Your task to perform on an android device: open app "WhatsApp Messenger" (install if not already installed) Image 0: 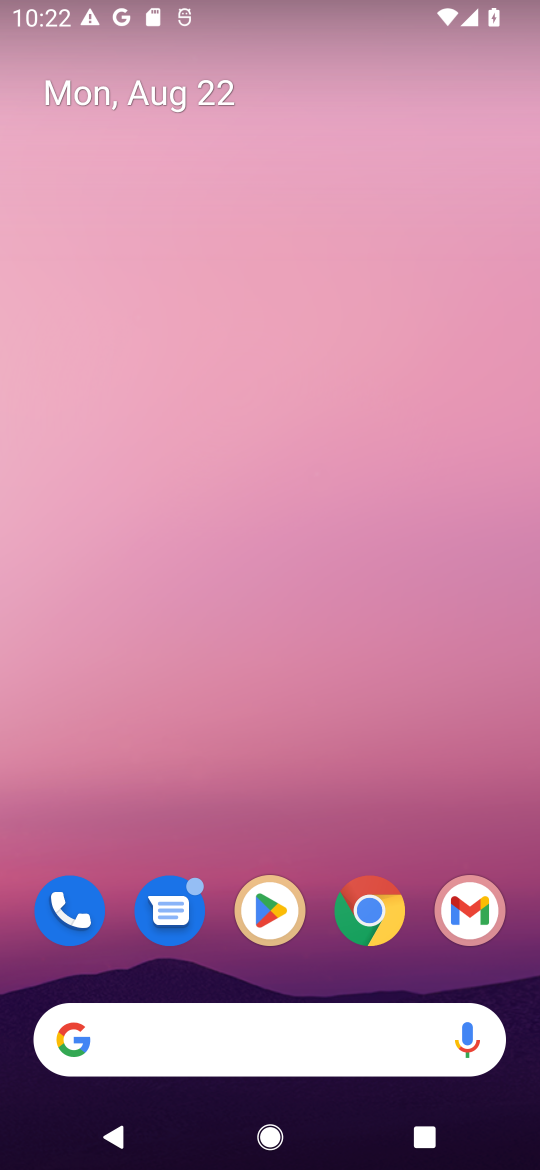
Step 0: click (271, 922)
Your task to perform on an android device: open app "WhatsApp Messenger" (install if not already installed) Image 1: 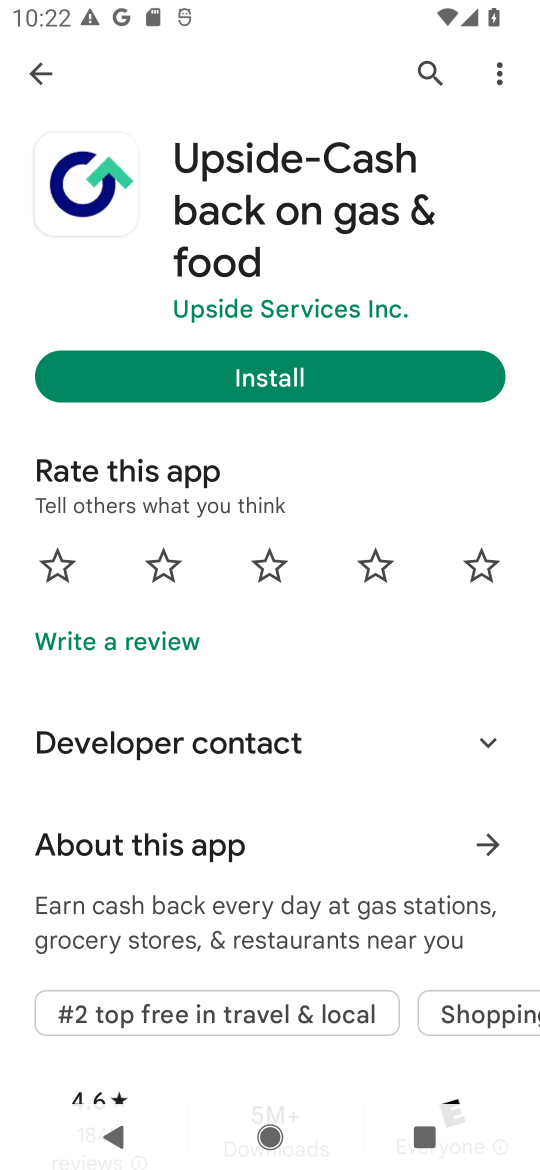
Step 1: click (440, 70)
Your task to perform on an android device: open app "WhatsApp Messenger" (install if not already installed) Image 2: 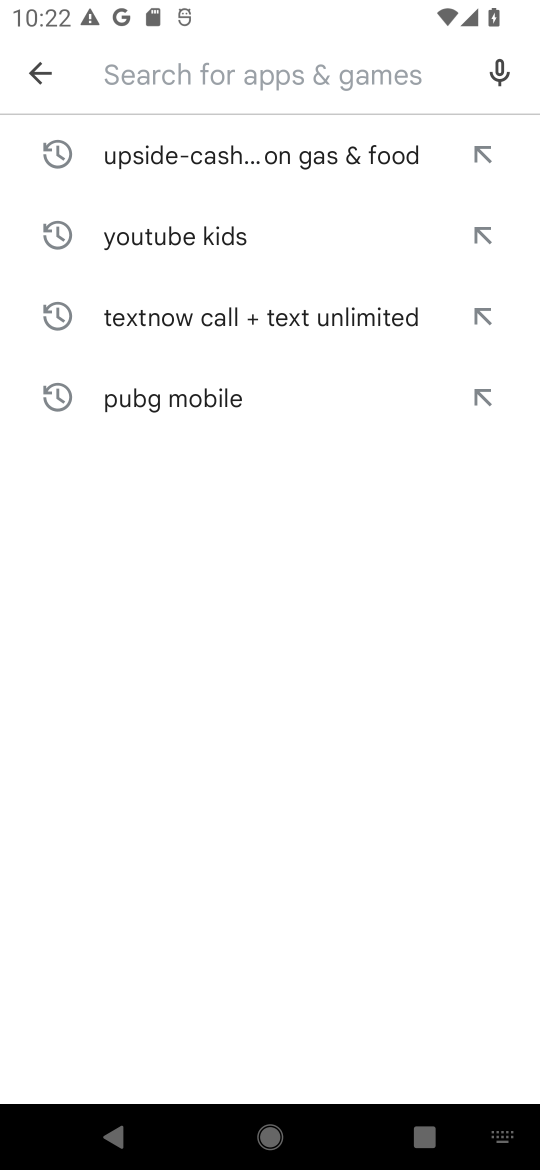
Step 2: type "WhatsApp Messenger"
Your task to perform on an android device: open app "WhatsApp Messenger" (install if not already installed) Image 3: 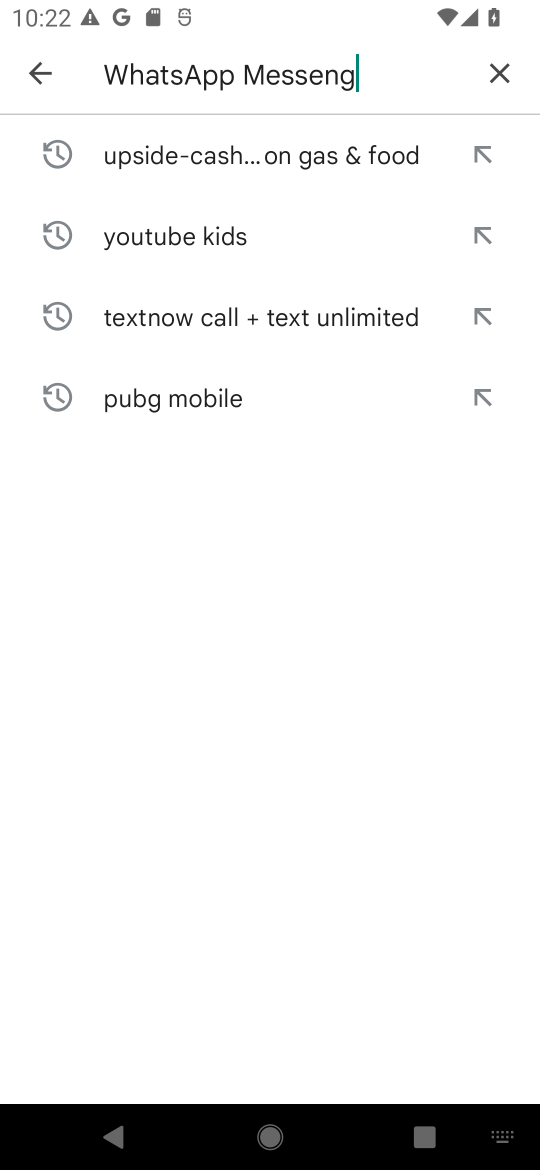
Step 3: type ""
Your task to perform on an android device: open app "WhatsApp Messenger" (install if not already installed) Image 4: 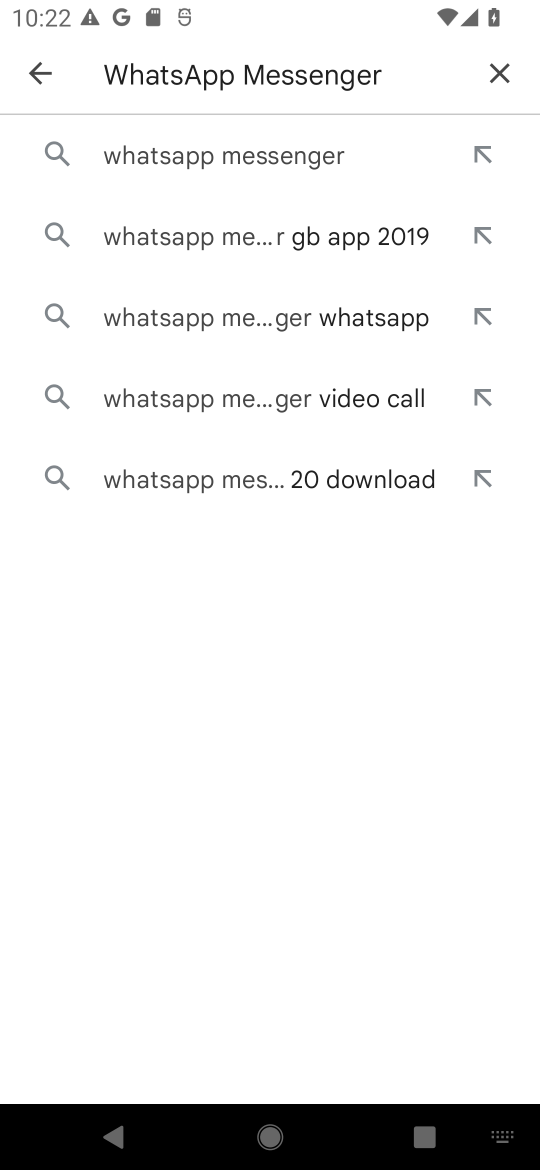
Step 4: click (229, 141)
Your task to perform on an android device: open app "WhatsApp Messenger" (install if not already installed) Image 5: 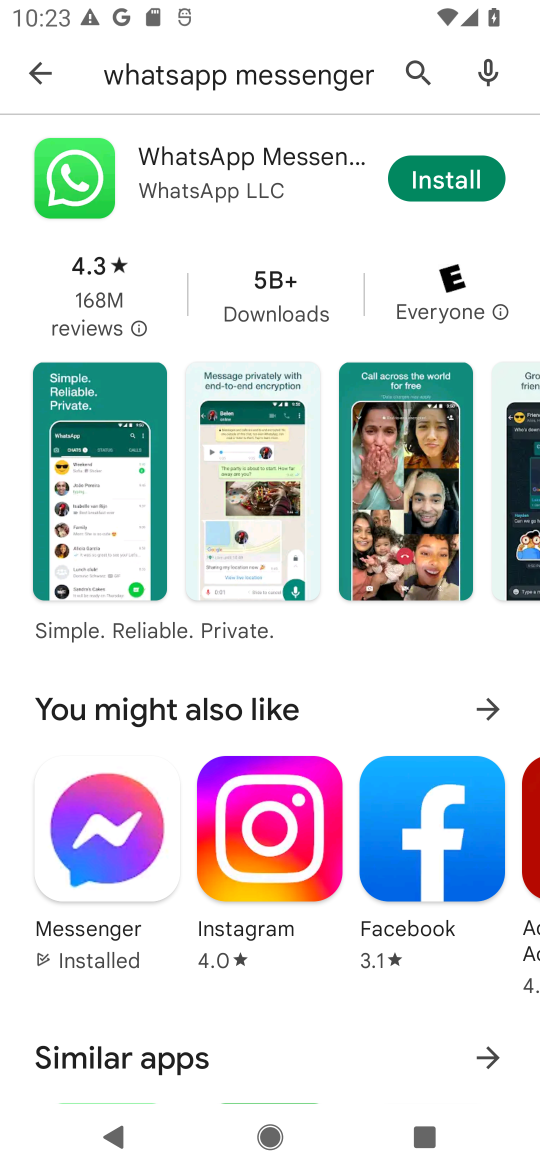
Step 5: click (434, 168)
Your task to perform on an android device: open app "WhatsApp Messenger" (install if not already installed) Image 6: 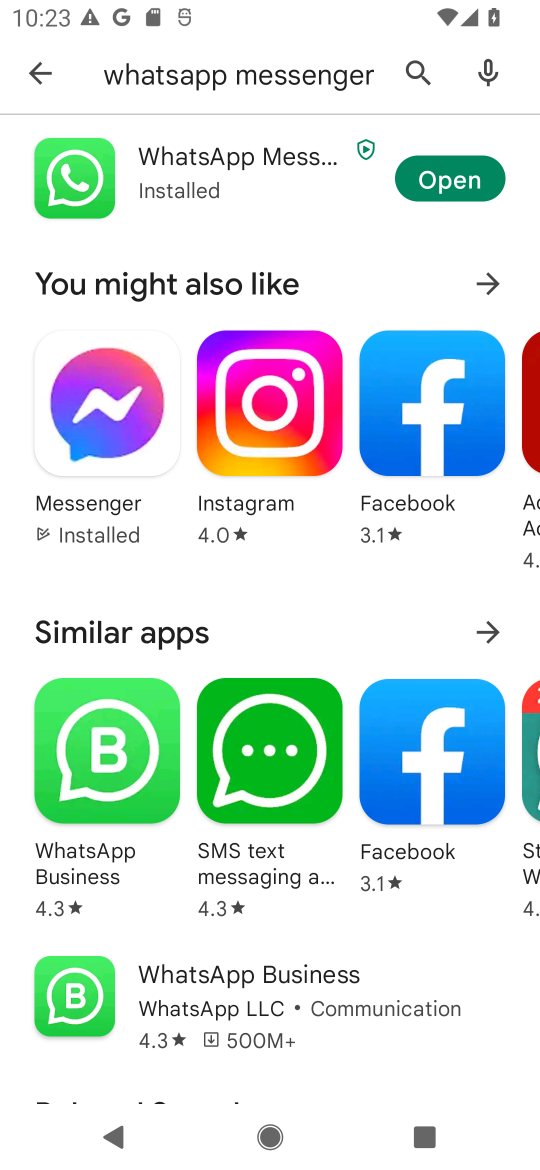
Step 6: click (425, 171)
Your task to perform on an android device: open app "WhatsApp Messenger" (install if not already installed) Image 7: 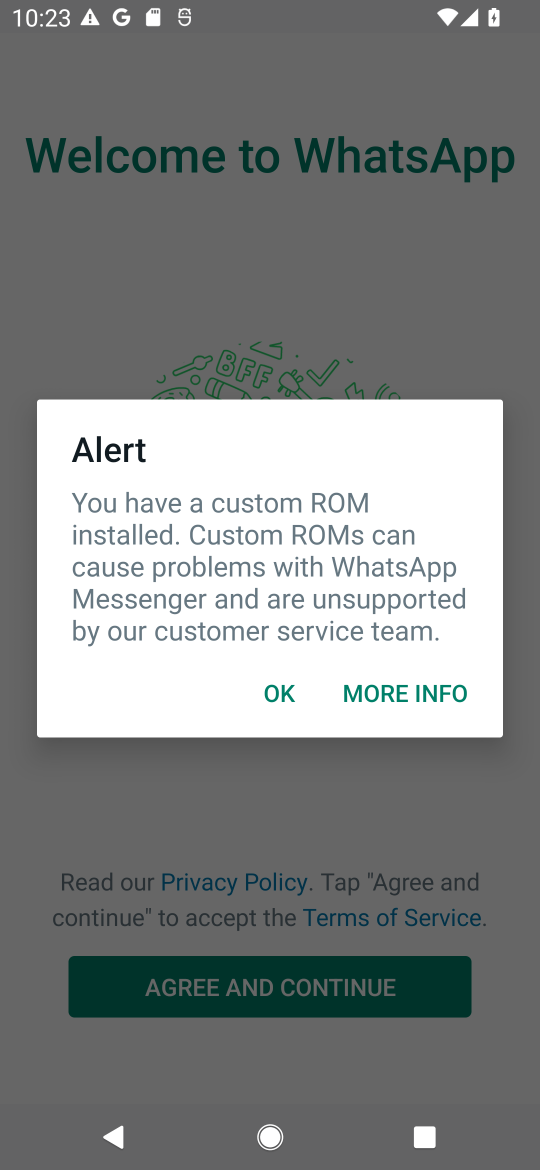
Step 7: task complete